Your task to perform on an android device: Open location settings Image 0: 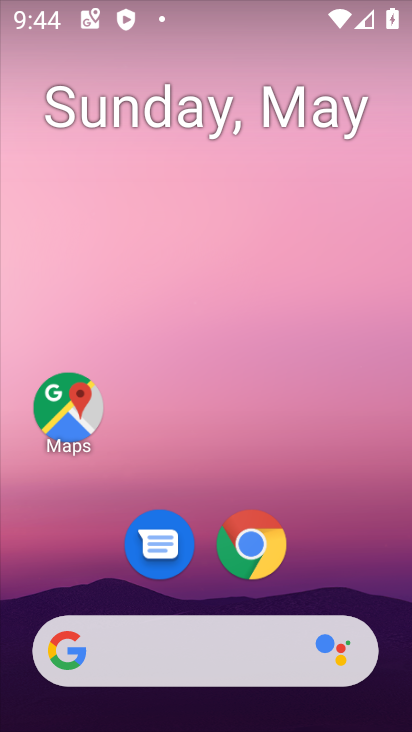
Step 0: drag from (333, 505) to (252, 1)
Your task to perform on an android device: Open location settings Image 1: 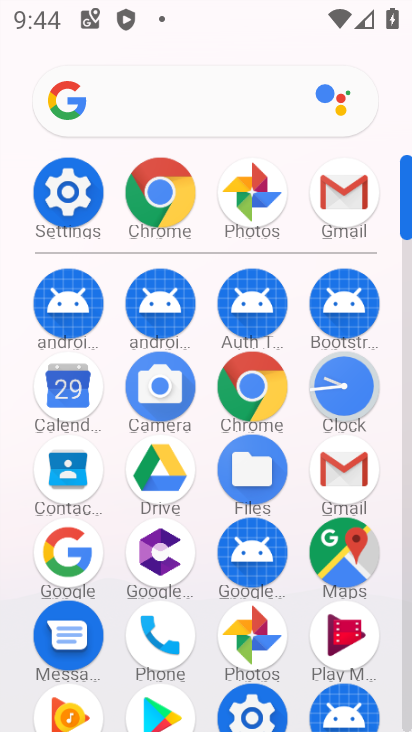
Step 1: click (74, 261)
Your task to perform on an android device: Open location settings Image 2: 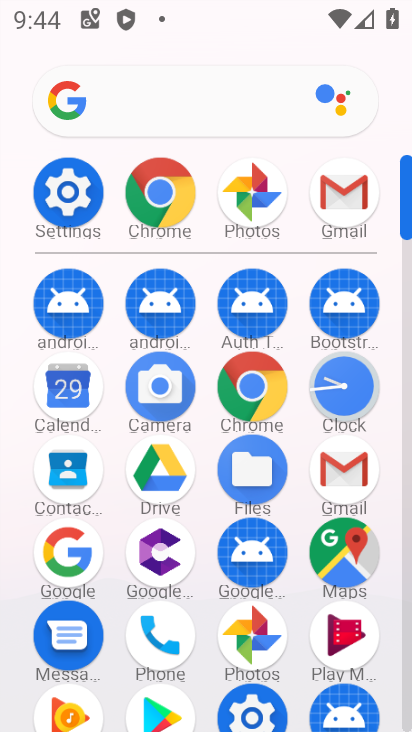
Step 2: click (59, 208)
Your task to perform on an android device: Open location settings Image 3: 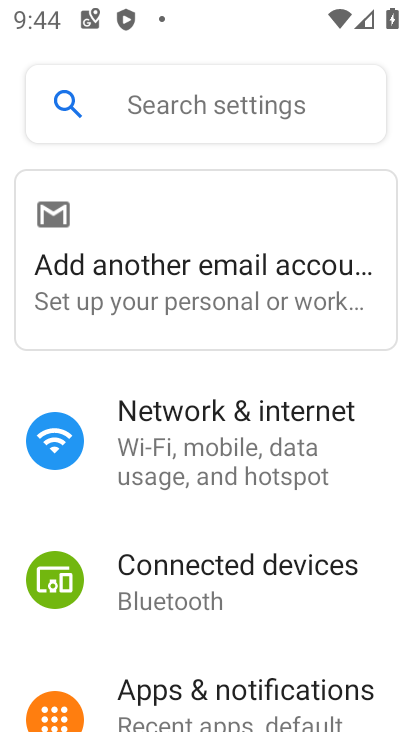
Step 3: drag from (204, 618) to (227, 0)
Your task to perform on an android device: Open location settings Image 4: 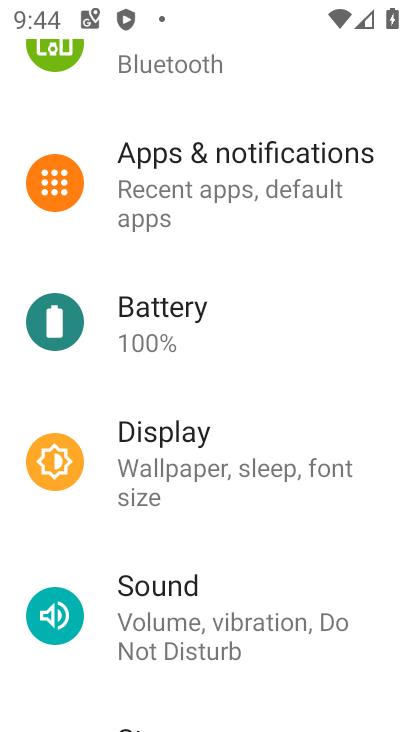
Step 4: drag from (231, 616) to (256, 13)
Your task to perform on an android device: Open location settings Image 5: 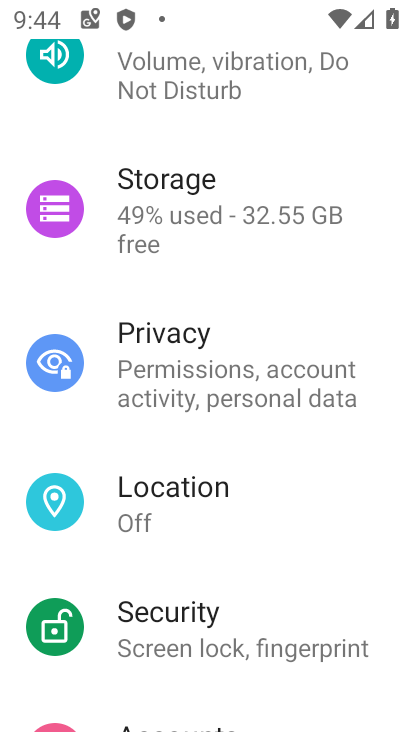
Step 5: click (187, 480)
Your task to perform on an android device: Open location settings Image 6: 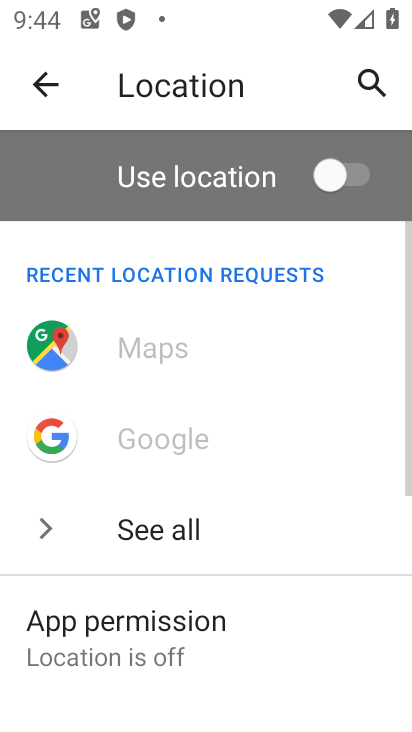
Step 6: task complete